Your task to perform on an android device: Open the calendar app, open the side menu, and click the "Day" option Image 0: 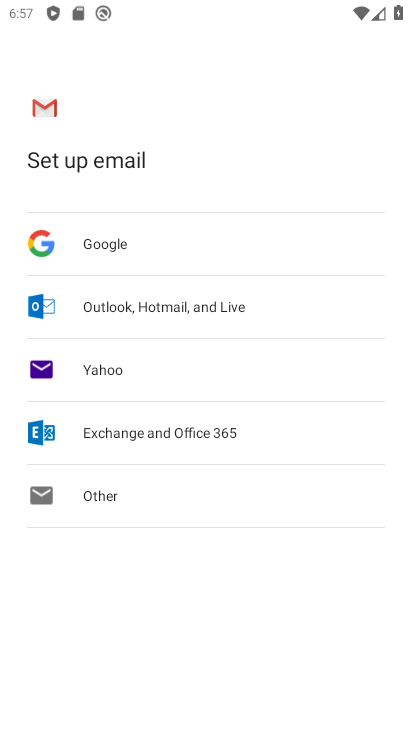
Step 0: press home button
Your task to perform on an android device: Open the calendar app, open the side menu, and click the "Day" option Image 1: 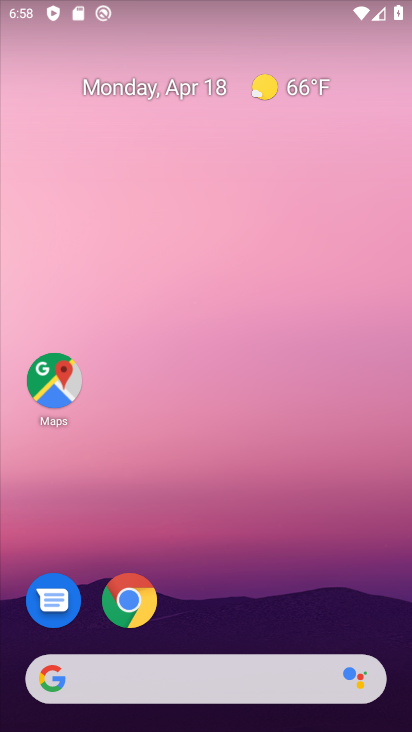
Step 1: drag from (230, 349) to (268, 38)
Your task to perform on an android device: Open the calendar app, open the side menu, and click the "Day" option Image 2: 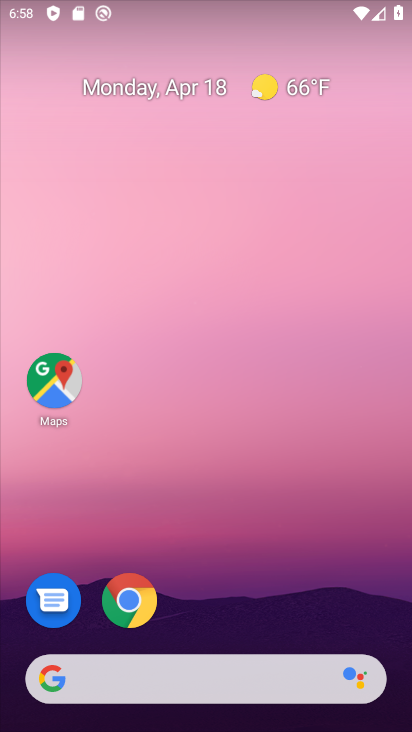
Step 2: drag from (222, 616) to (132, 14)
Your task to perform on an android device: Open the calendar app, open the side menu, and click the "Day" option Image 3: 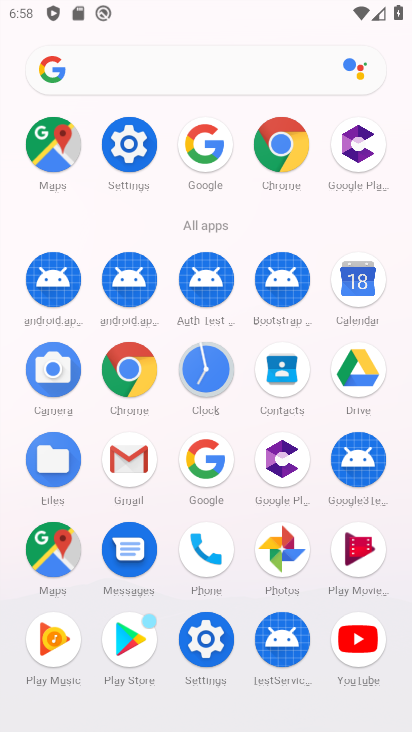
Step 3: click (348, 285)
Your task to perform on an android device: Open the calendar app, open the side menu, and click the "Day" option Image 4: 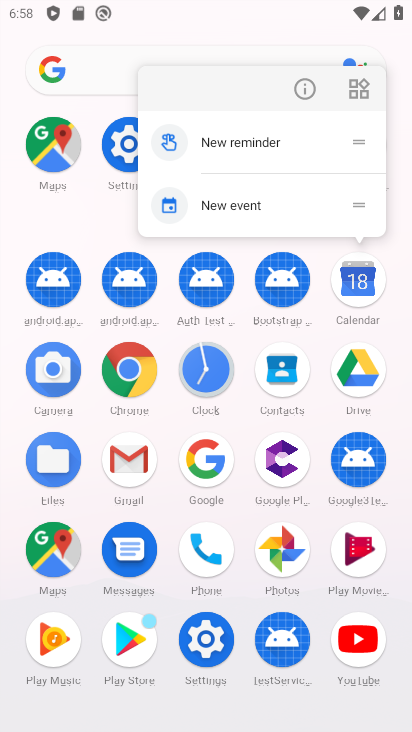
Step 4: click (359, 289)
Your task to perform on an android device: Open the calendar app, open the side menu, and click the "Day" option Image 5: 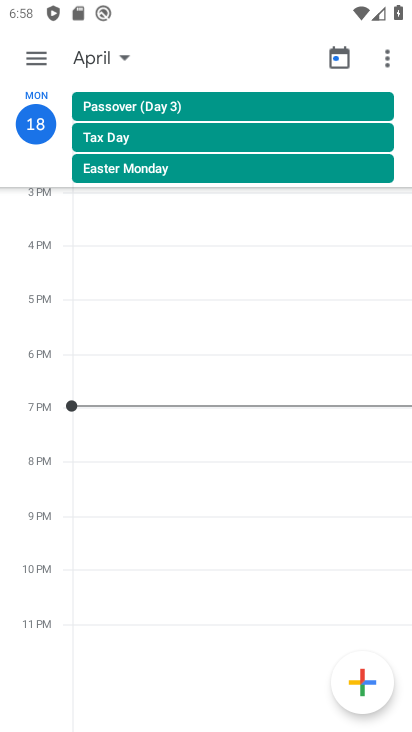
Step 5: click (36, 60)
Your task to perform on an android device: Open the calendar app, open the side menu, and click the "Day" option Image 6: 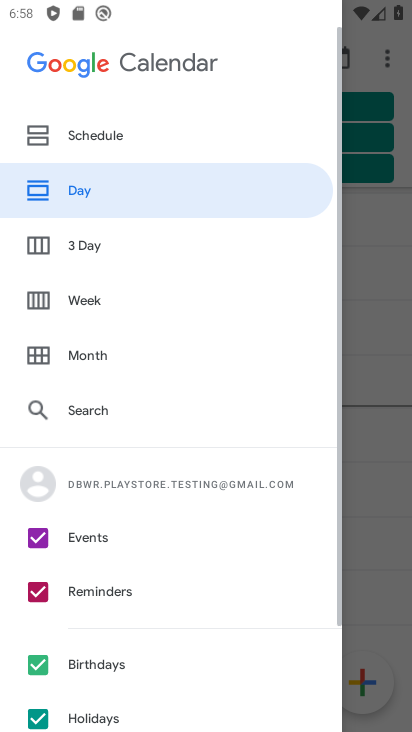
Step 6: click (78, 187)
Your task to perform on an android device: Open the calendar app, open the side menu, and click the "Day" option Image 7: 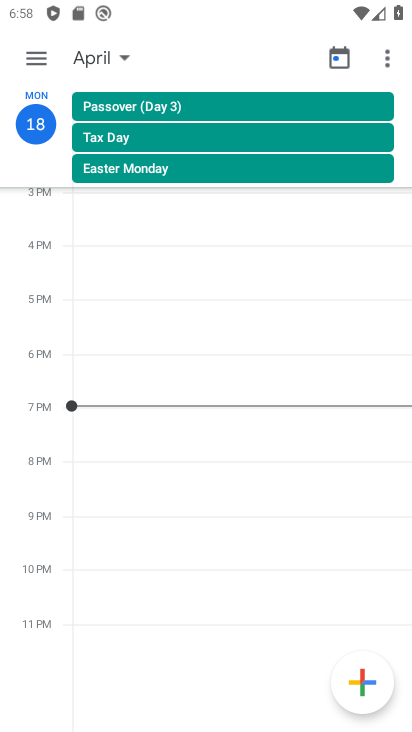
Step 7: task complete